Your task to perform on an android device: check the backup settings in the google photos Image 0: 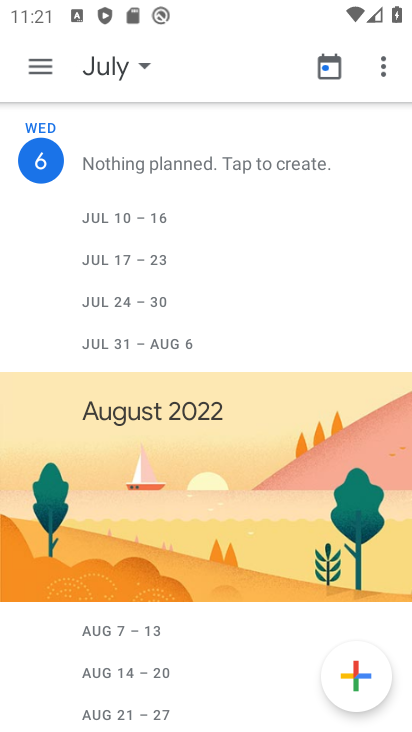
Step 0: press home button
Your task to perform on an android device: check the backup settings in the google photos Image 1: 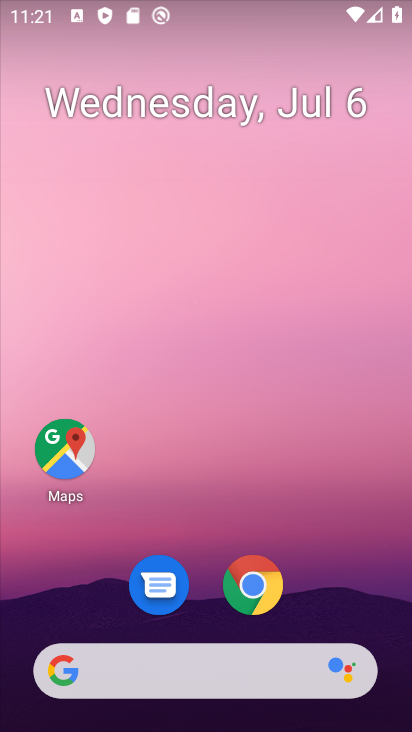
Step 1: drag from (226, 537) to (278, 7)
Your task to perform on an android device: check the backup settings in the google photos Image 2: 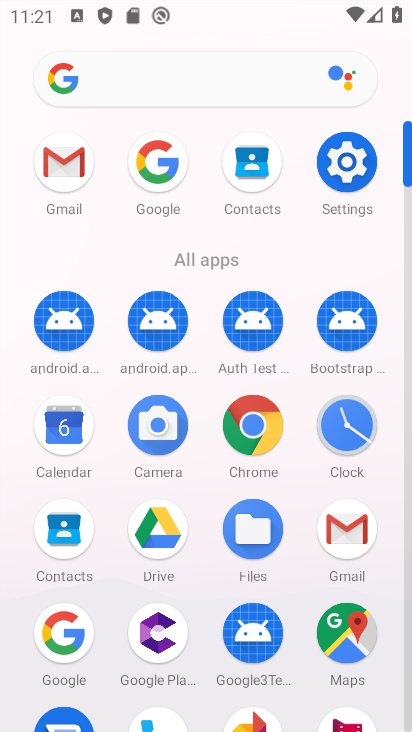
Step 2: drag from (199, 455) to (230, 127)
Your task to perform on an android device: check the backup settings in the google photos Image 3: 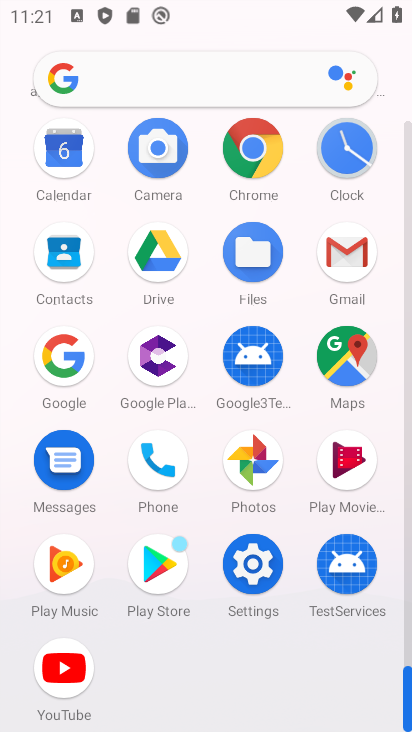
Step 3: click (261, 460)
Your task to perform on an android device: check the backup settings in the google photos Image 4: 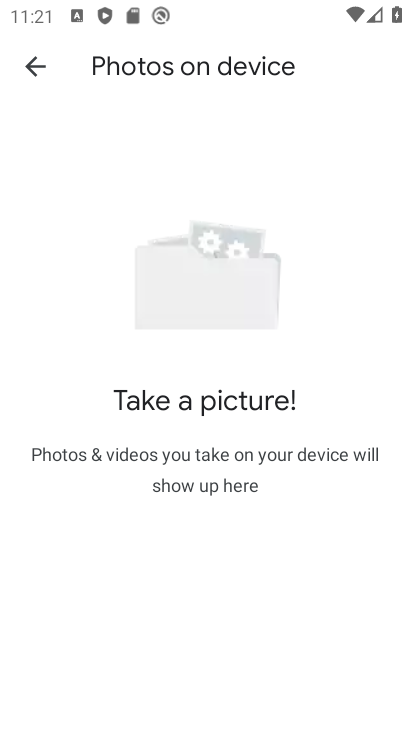
Step 4: click (39, 56)
Your task to perform on an android device: check the backup settings in the google photos Image 5: 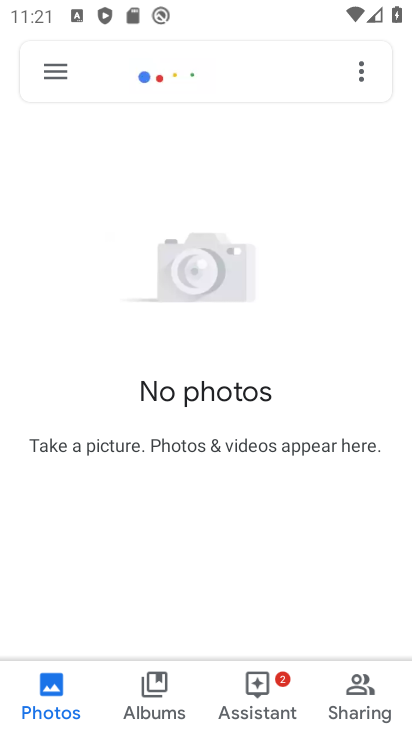
Step 5: click (57, 69)
Your task to perform on an android device: check the backup settings in the google photos Image 6: 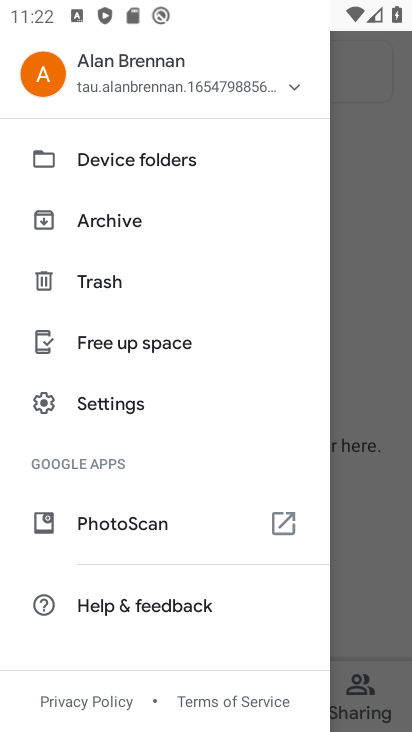
Step 6: click (125, 396)
Your task to perform on an android device: check the backup settings in the google photos Image 7: 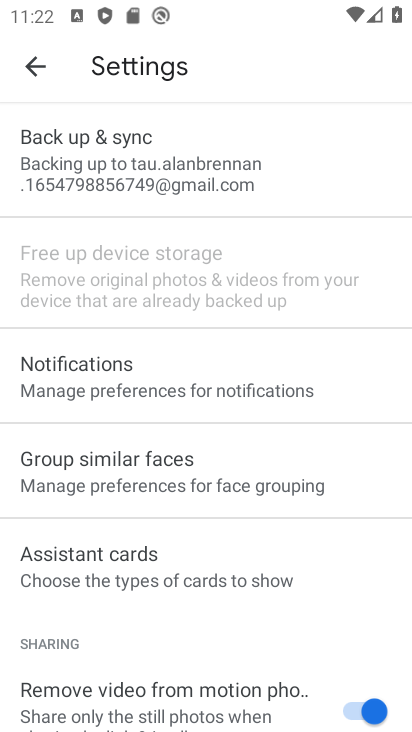
Step 7: click (165, 155)
Your task to perform on an android device: check the backup settings in the google photos Image 8: 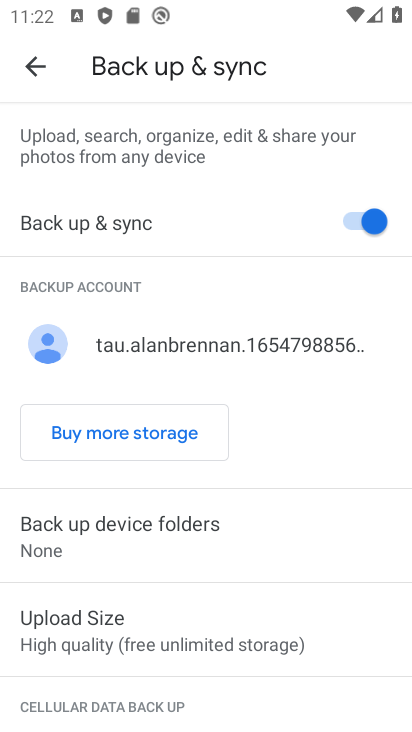
Step 8: click (184, 625)
Your task to perform on an android device: check the backup settings in the google photos Image 9: 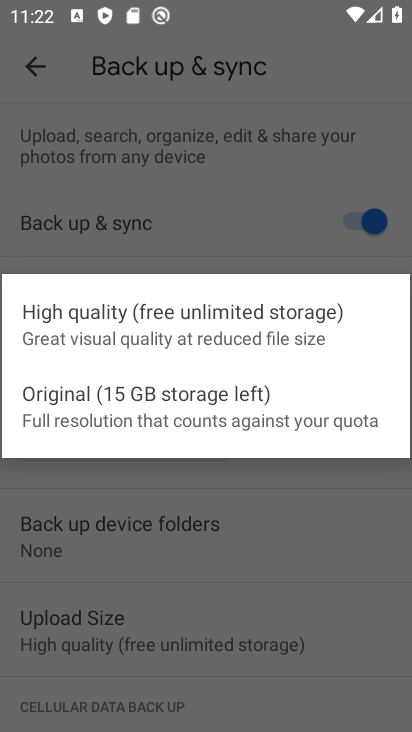
Step 9: click (207, 176)
Your task to perform on an android device: check the backup settings in the google photos Image 10: 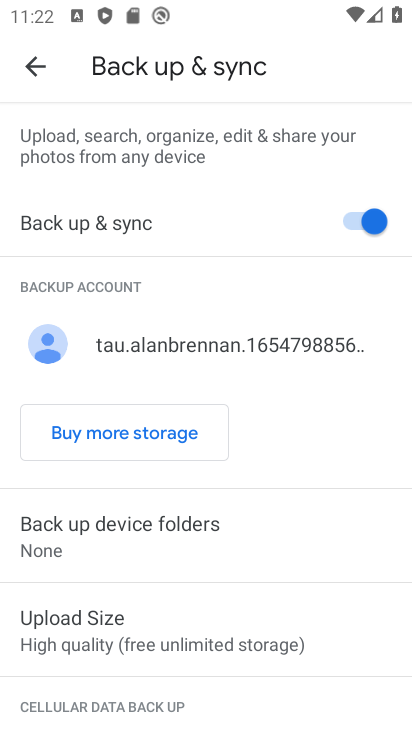
Step 10: click (259, 141)
Your task to perform on an android device: check the backup settings in the google photos Image 11: 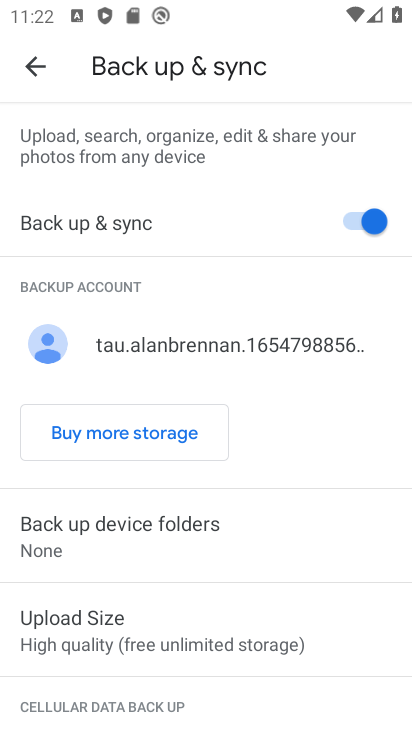
Step 11: task complete